Your task to perform on an android device: Open display settings Image 0: 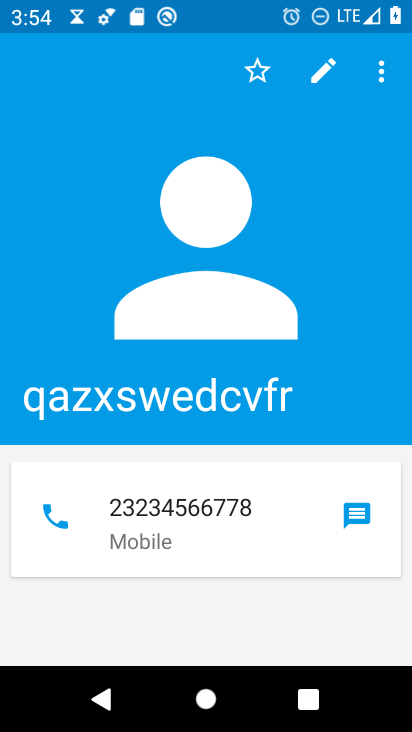
Step 0: press home button
Your task to perform on an android device: Open display settings Image 1: 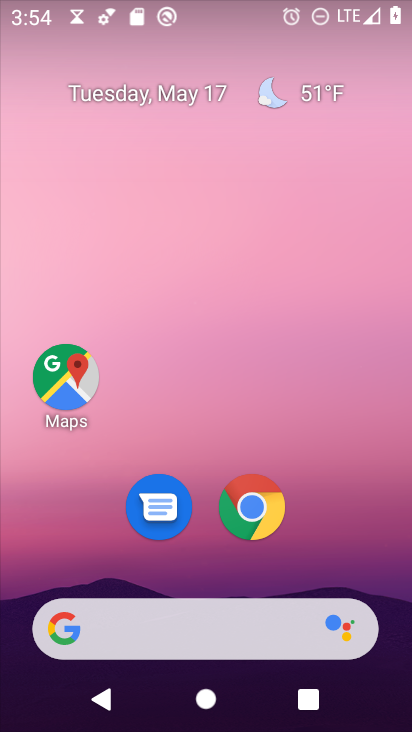
Step 1: drag from (185, 531) to (187, 40)
Your task to perform on an android device: Open display settings Image 2: 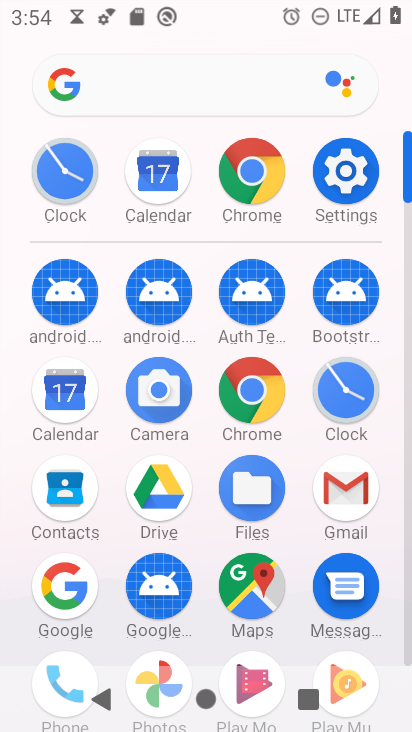
Step 2: click (343, 171)
Your task to perform on an android device: Open display settings Image 3: 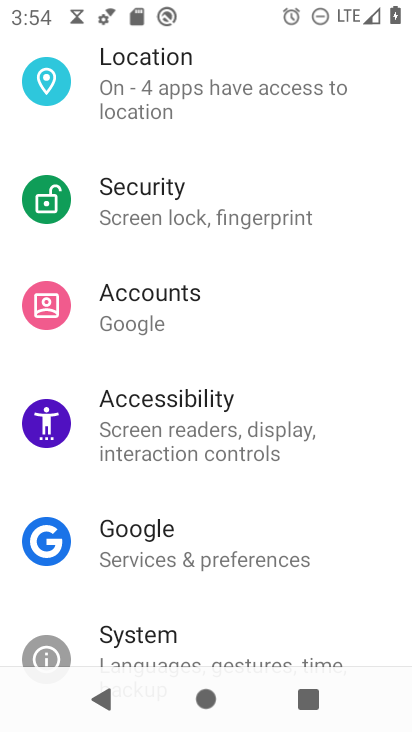
Step 3: drag from (161, 224) to (221, 393)
Your task to perform on an android device: Open display settings Image 4: 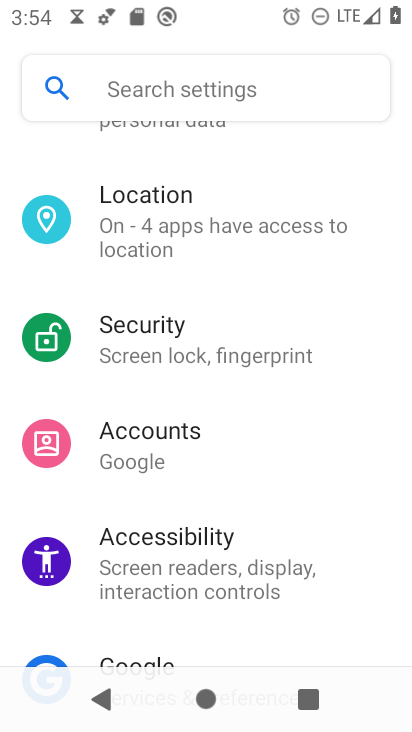
Step 4: drag from (229, 225) to (254, 384)
Your task to perform on an android device: Open display settings Image 5: 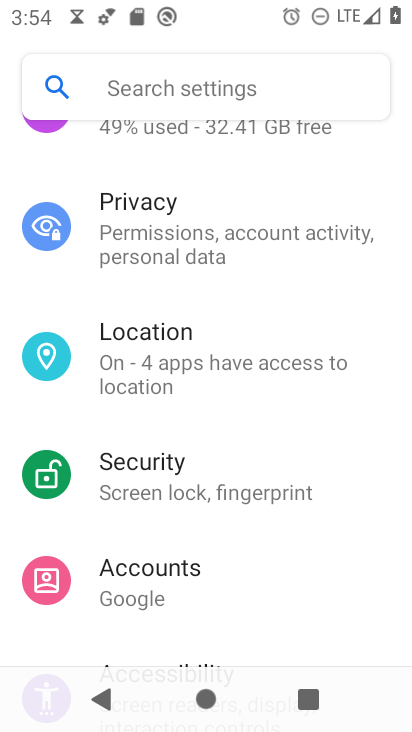
Step 5: drag from (229, 257) to (284, 389)
Your task to perform on an android device: Open display settings Image 6: 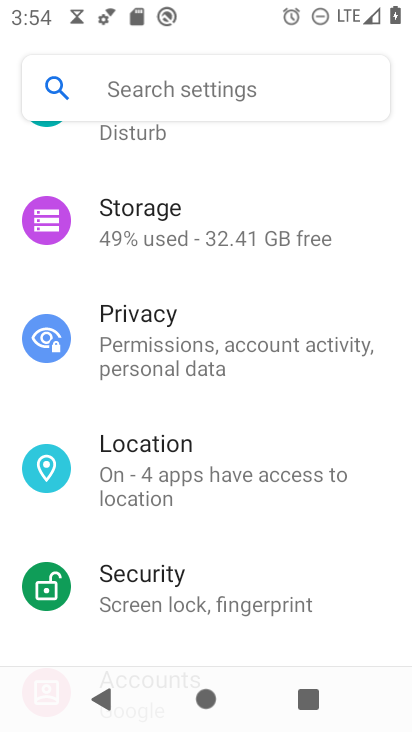
Step 6: drag from (261, 275) to (272, 425)
Your task to perform on an android device: Open display settings Image 7: 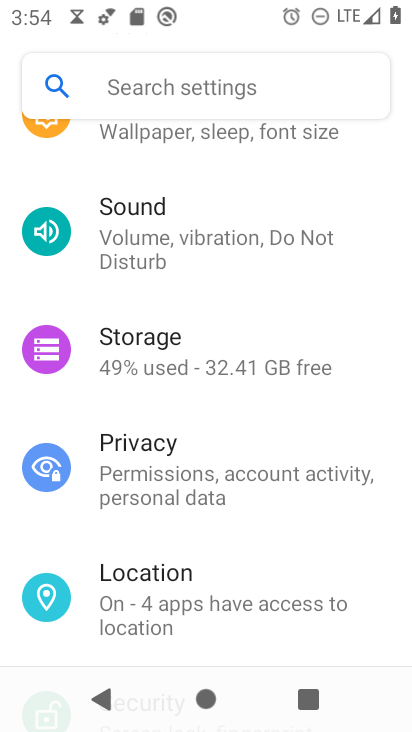
Step 7: drag from (215, 267) to (252, 473)
Your task to perform on an android device: Open display settings Image 8: 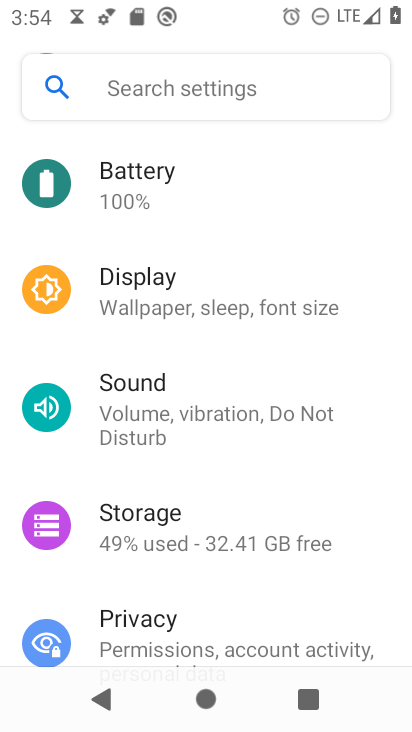
Step 8: click (172, 303)
Your task to perform on an android device: Open display settings Image 9: 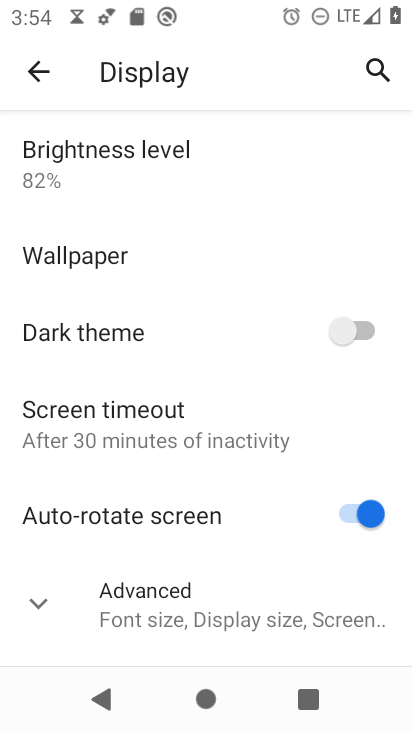
Step 9: task complete